Your task to perform on an android device: toggle location history Image 0: 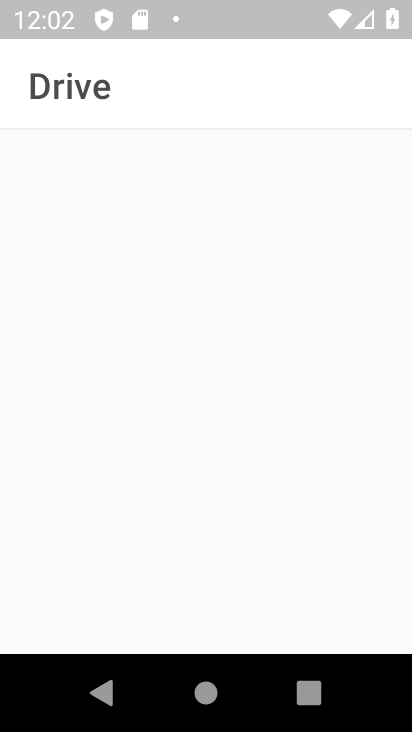
Step 0: press back button
Your task to perform on an android device: toggle location history Image 1: 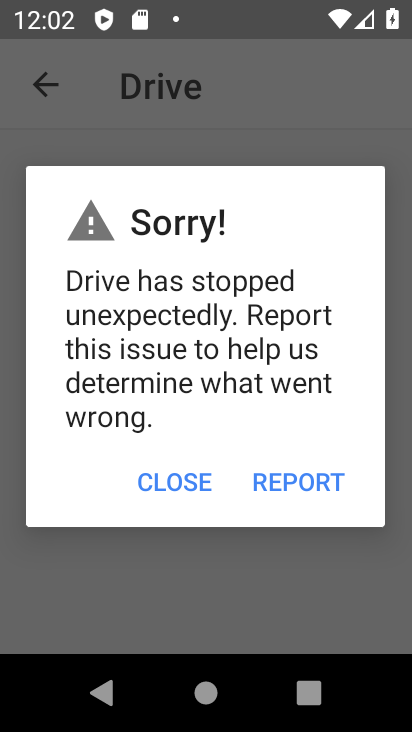
Step 1: press back button
Your task to perform on an android device: toggle location history Image 2: 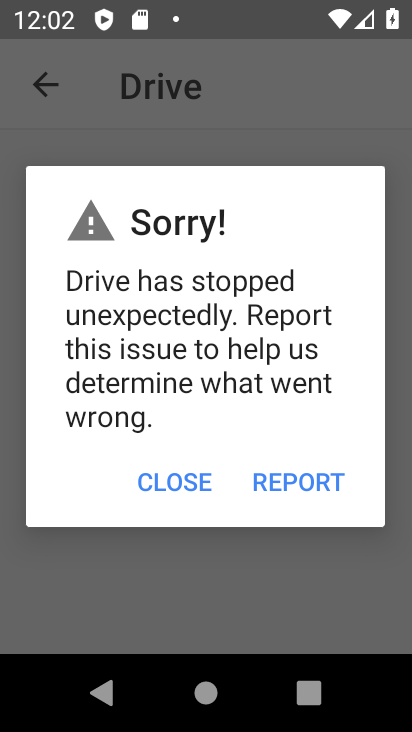
Step 2: press home button
Your task to perform on an android device: toggle location history Image 3: 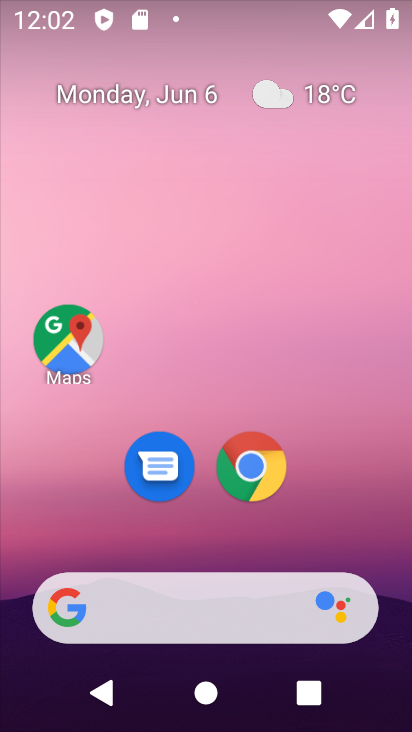
Step 3: drag from (362, 498) to (219, 16)
Your task to perform on an android device: toggle location history Image 4: 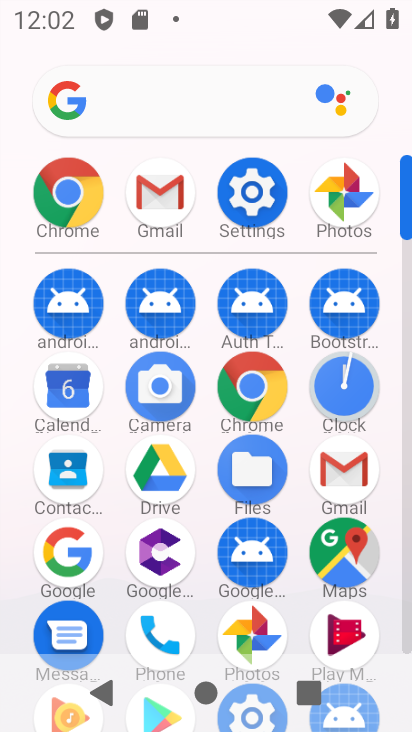
Step 4: click (254, 189)
Your task to perform on an android device: toggle location history Image 5: 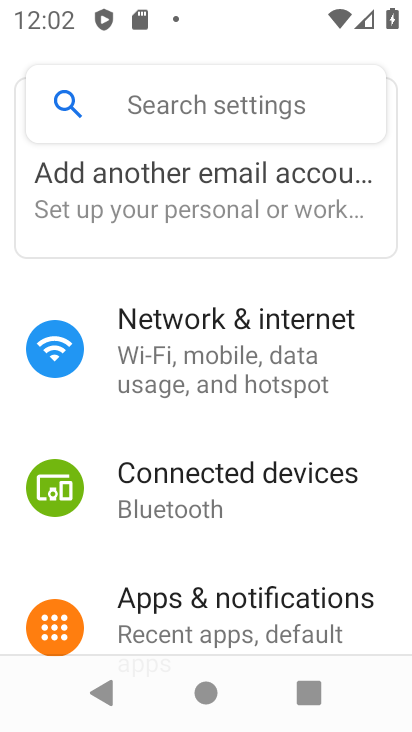
Step 5: drag from (286, 521) to (270, 201)
Your task to perform on an android device: toggle location history Image 6: 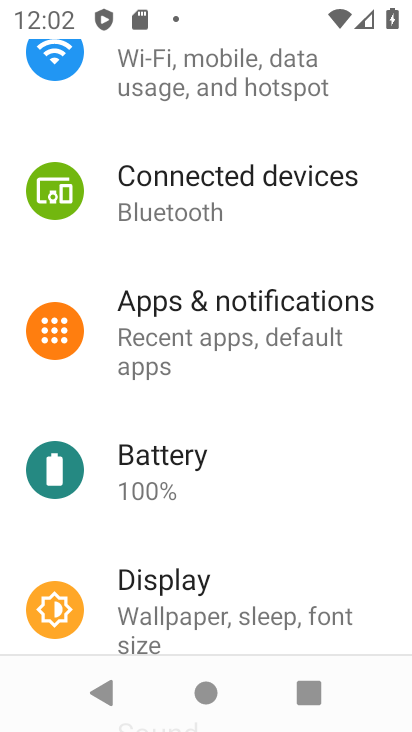
Step 6: drag from (250, 536) to (255, 165)
Your task to perform on an android device: toggle location history Image 7: 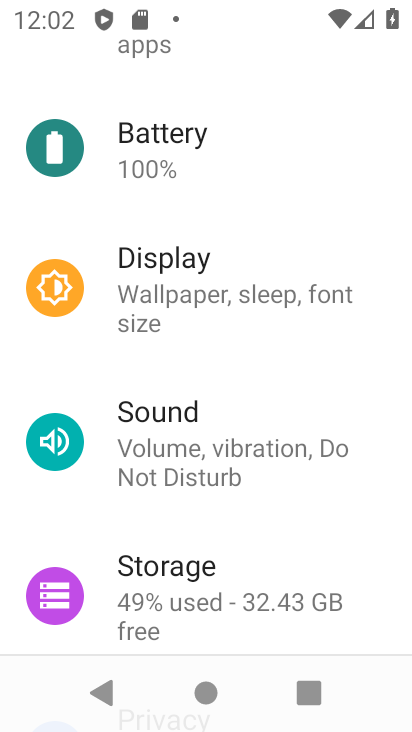
Step 7: drag from (282, 552) to (273, 171)
Your task to perform on an android device: toggle location history Image 8: 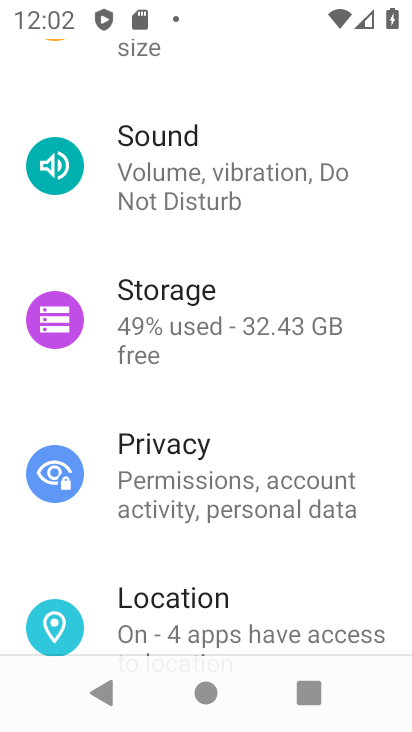
Step 8: click (217, 611)
Your task to perform on an android device: toggle location history Image 9: 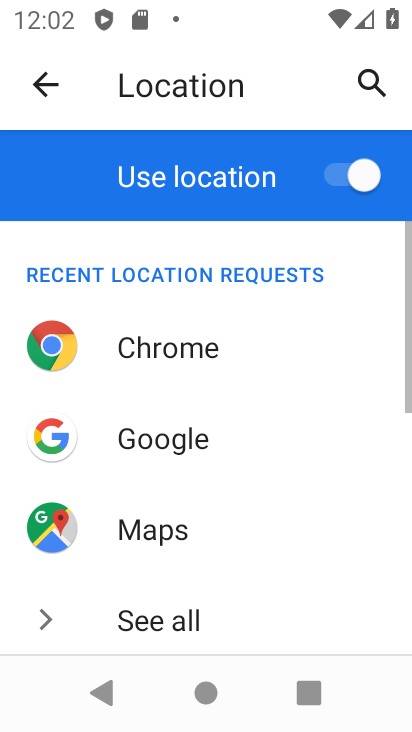
Step 9: drag from (261, 565) to (253, 168)
Your task to perform on an android device: toggle location history Image 10: 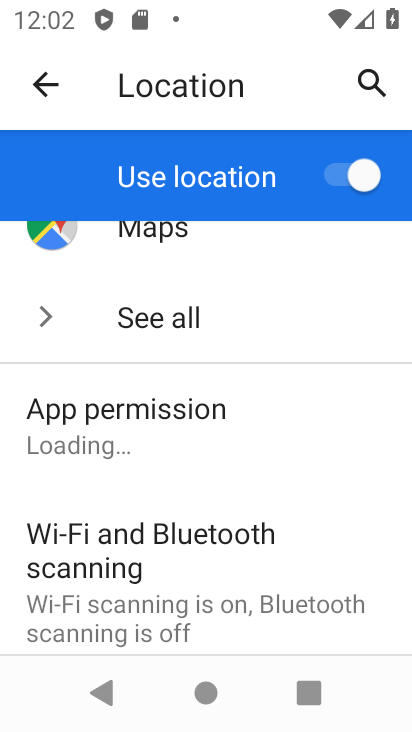
Step 10: drag from (242, 551) to (252, 182)
Your task to perform on an android device: toggle location history Image 11: 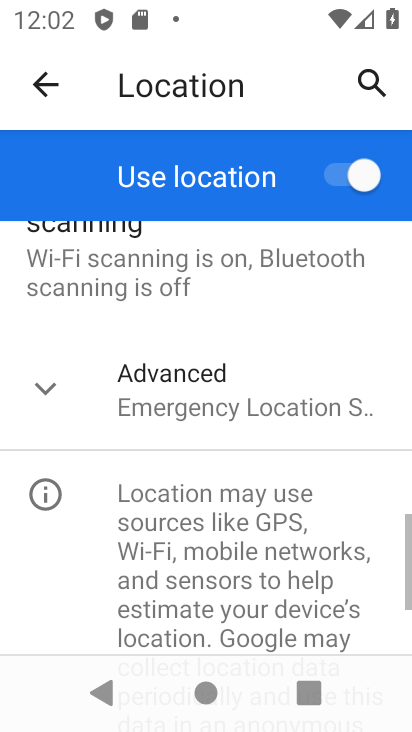
Step 11: click (185, 412)
Your task to perform on an android device: toggle location history Image 12: 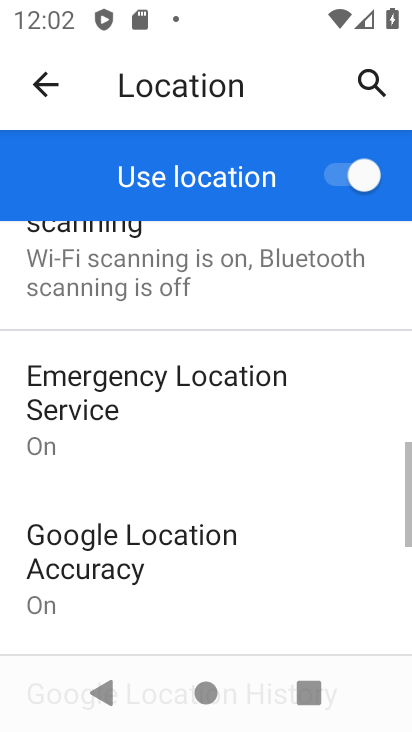
Step 12: drag from (226, 604) to (235, 312)
Your task to perform on an android device: toggle location history Image 13: 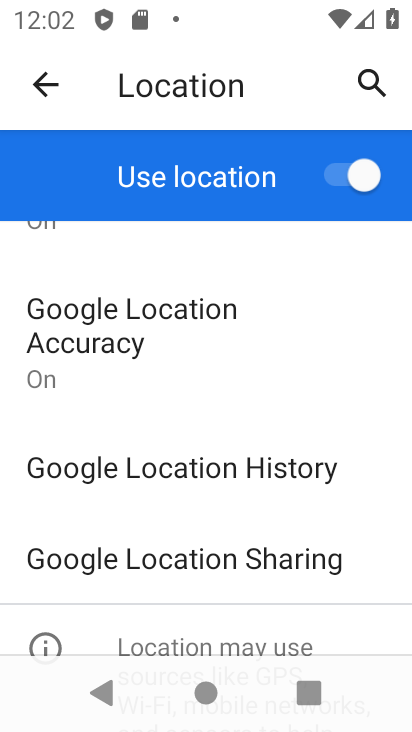
Step 13: click (202, 475)
Your task to perform on an android device: toggle location history Image 14: 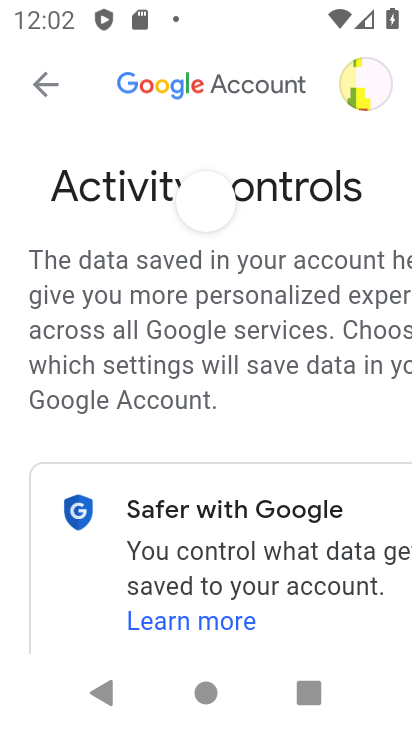
Step 14: drag from (224, 517) to (169, 223)
Your task to perform on an android device: toggle location history Image 15: 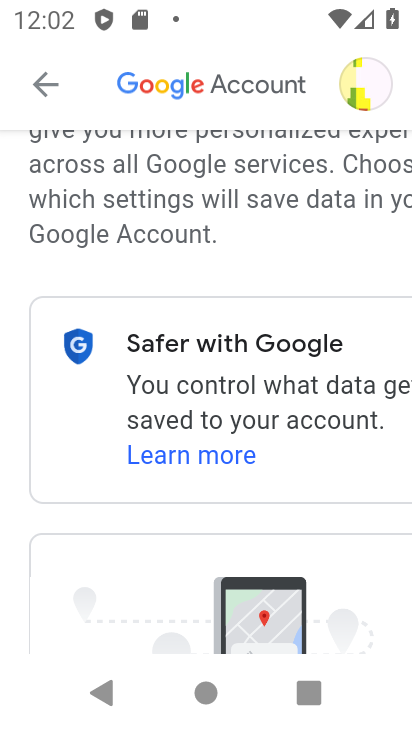
Step 15: drag from (190, 568) to (169, 216)
Your task to perform on an android device: toggle location history Image 16: 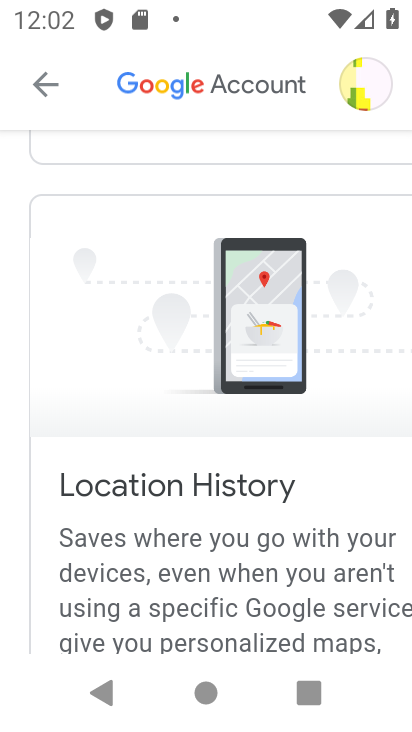
Step 16: drag from (205, 513) to (211, 175)
Your task to perform on an android device: toggle location history Image 17: 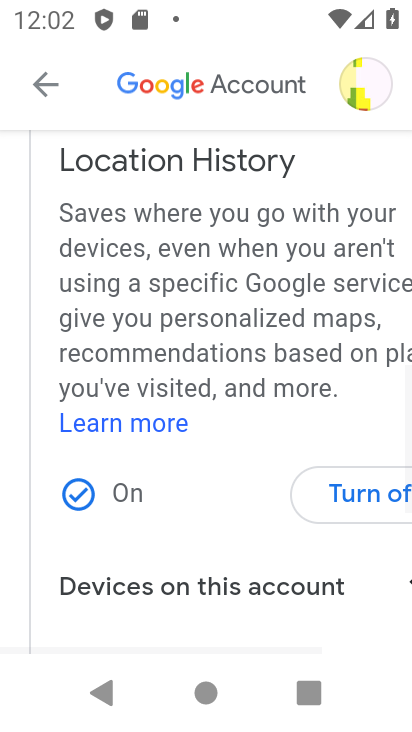
Step 17: drag from (186, 561) to (145, 247)
Your task to perform on an android device: toggle location history Image 18: 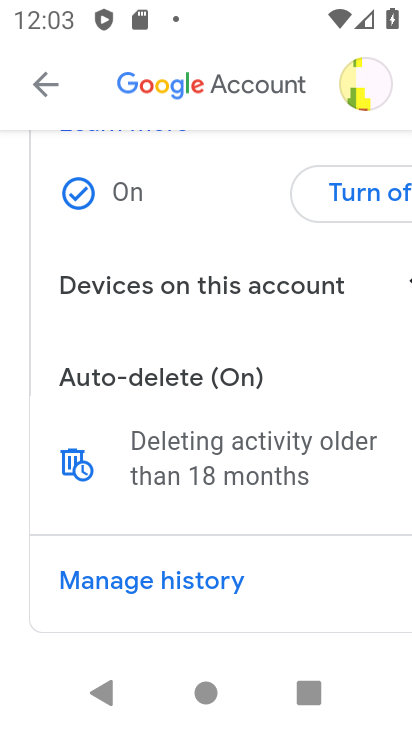
Step 18: drag from (285, 299) to (177, 286)
Your task to perform on an android device: toggle location history Image 19: 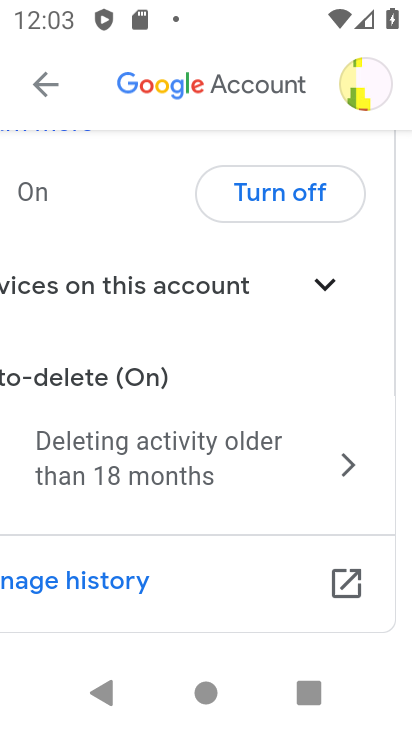
Step 19: click (271, 184)
Your task to perform on an android device: toggle location history Image 20: 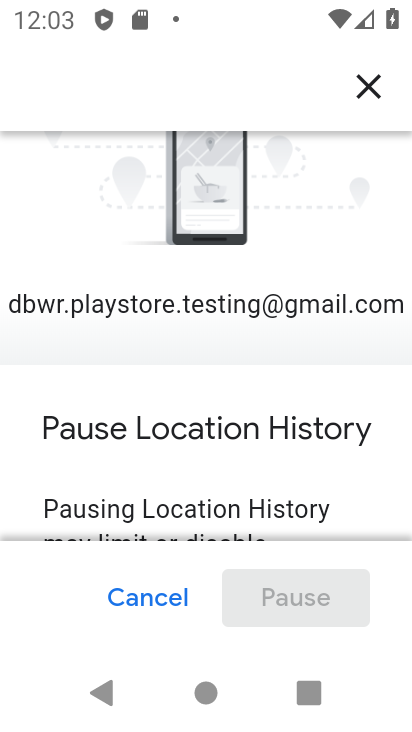
Step 20: drag from (196, 462) to (140, 139)
Your task to perform on an android device: toggle location history Image 21: 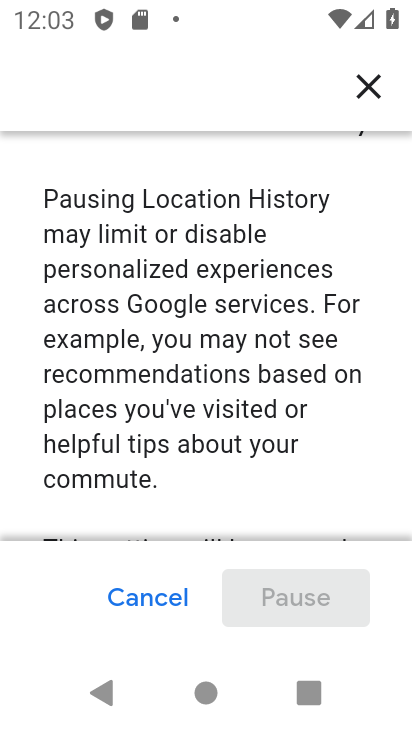
Step 21: drag from (160, 485) to (184, 123)
Your task to perform on an android device: toggle location history Image 22: 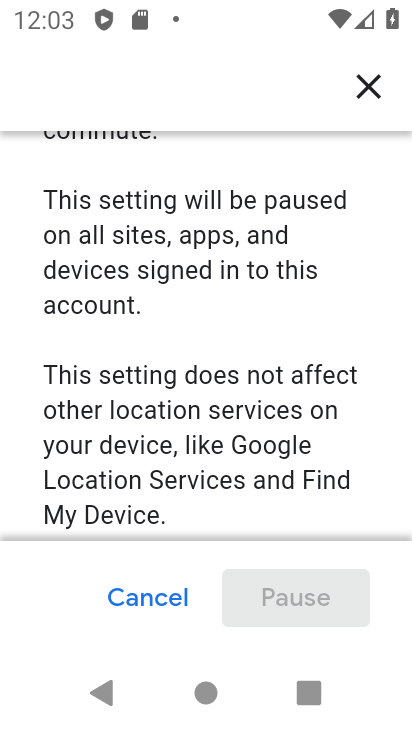
Step 22: drag from (242, 436) to (246, 146)
Your task to perform on an android device: toggle location history Image 23: 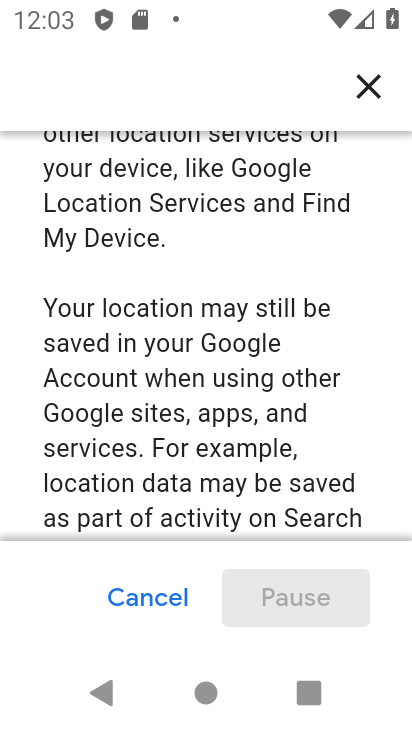
Step 23: drag from (253, 410) to (266, 122)
Your task to perform on an android device: toggle location history Image 24: 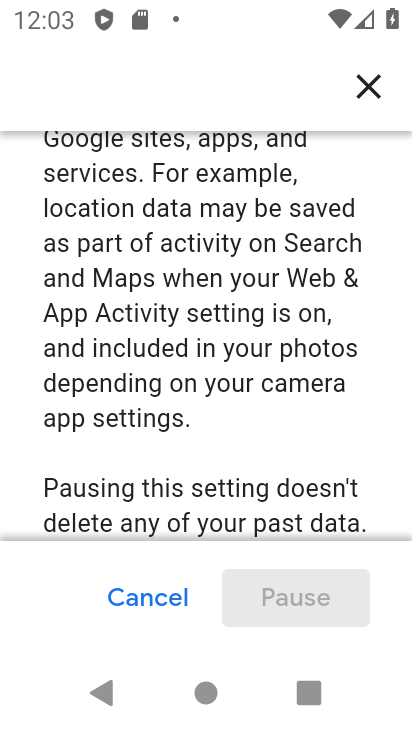
Step 24: drag from (321, 492) to (321, 136)
Your task to perform on an android device: toggle location history Image 25: 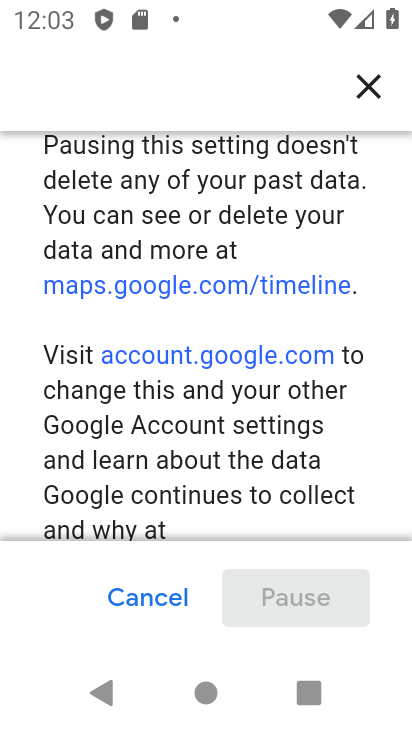
Step 25: drag from (261, 426) to (264, 74)
Your task to perform on an android device: toggle location history Image 26: 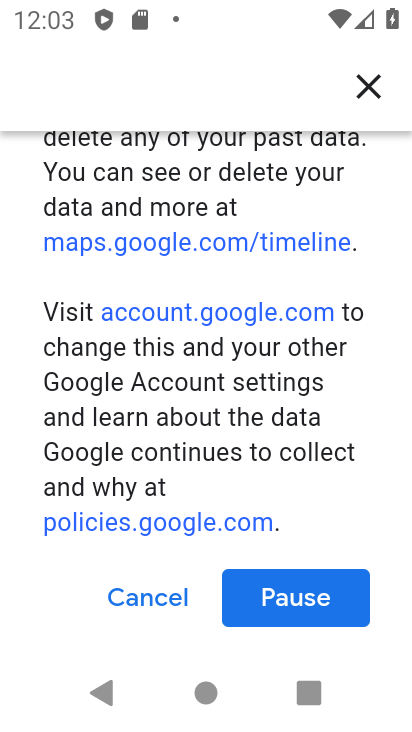
Step 26: click (282, 596)
Your task to perform on an android device: toggle location history Image 27: 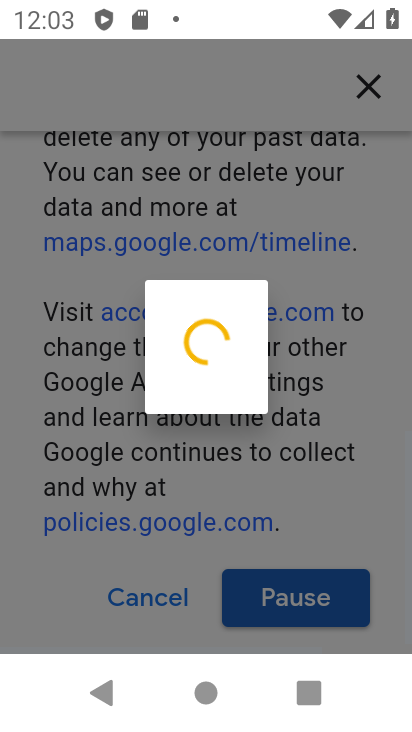
Step 27: click (282, 596)
Your task to perform on an android device: toggle location history Image 28: 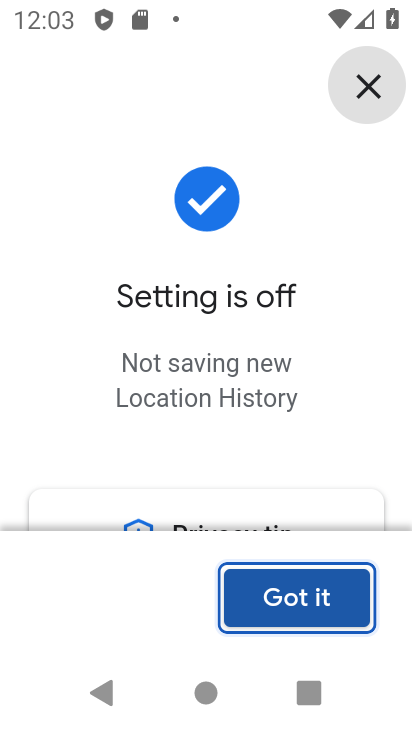
Step 28: task complete